Your task to perform on an android device: Go to notification settings Image 0: 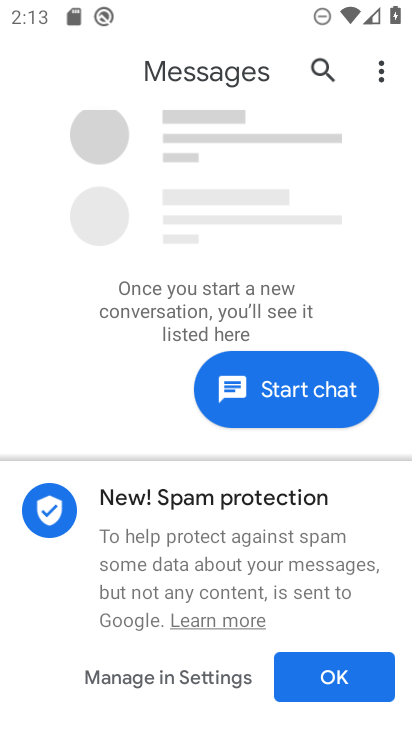
Step 0: press back button
Your task to perform on an android device: Go to notification settings Image 1: 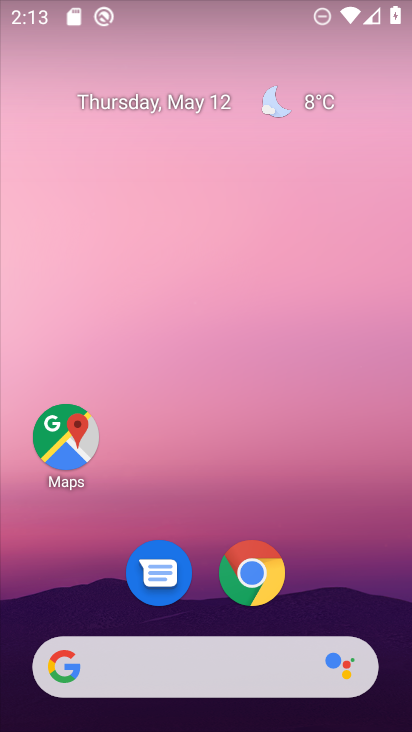
Step 1: drag from (320, 650) to (74, 0)
Your task to perform on an android device: Go to notification settings Image 2: 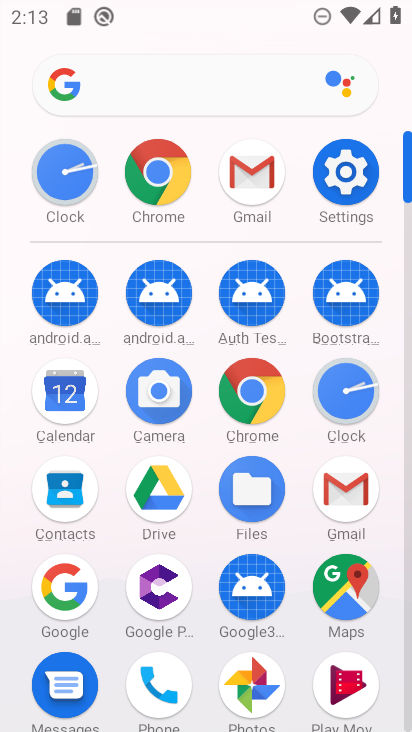
Step 2: click (333, 171)
Your task to perform on an android device: Go to notification settings Image 3: 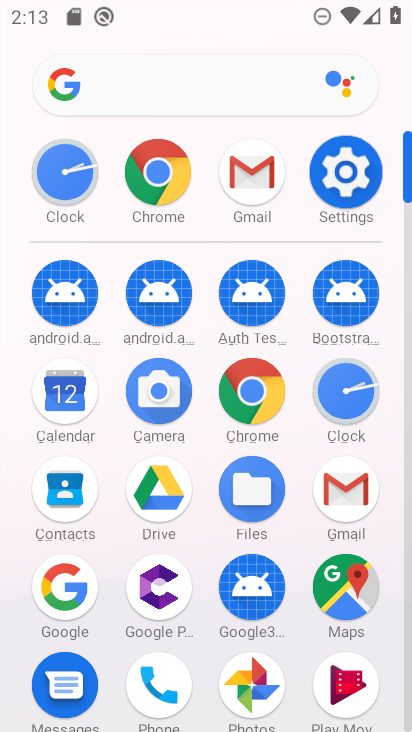
Step 3: click (339, 173)
Your task to perform on an android device: Go to notification settings Image 4: 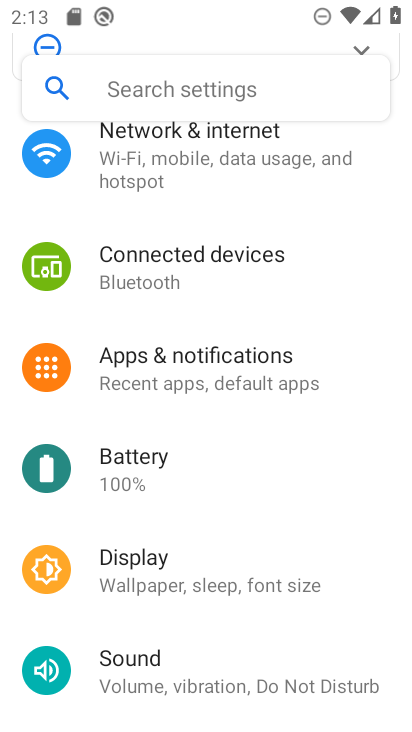
Step 4: click (164, 354)
Your task to perform on an android device: Go to notification settings Image 5: 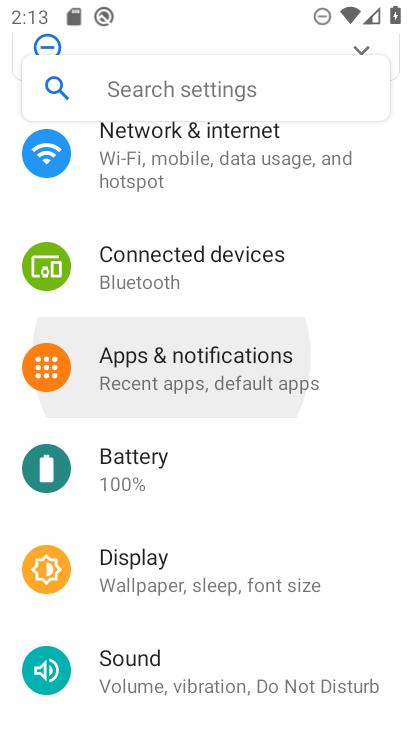
Step 5: click (165, 357)
Your task to perform on an android device: Go to notification settings Image 6: 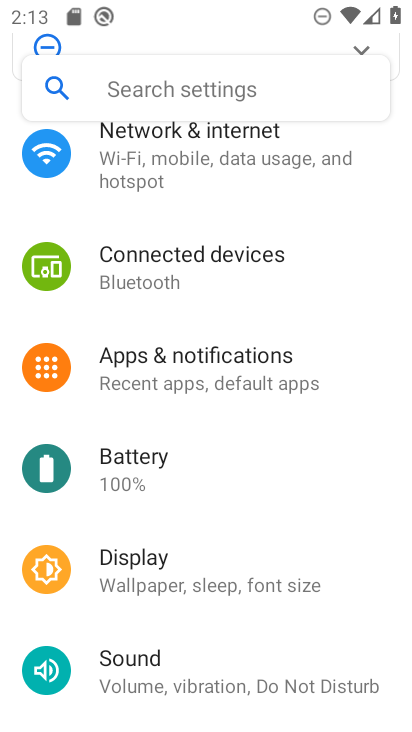
Step 6: click (174, 356)
Your task to perform on an android device: Go to notification settings Image 7: 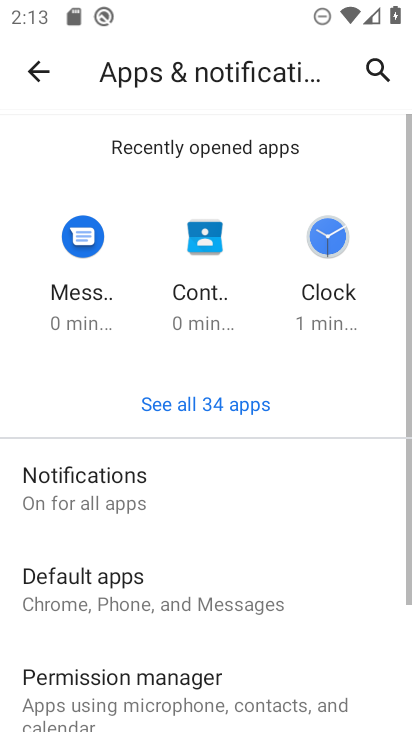
Step 7: drag from (228, 486) to (167, 85)
Your task to perform on an android device: Go to notification settings Image 8: 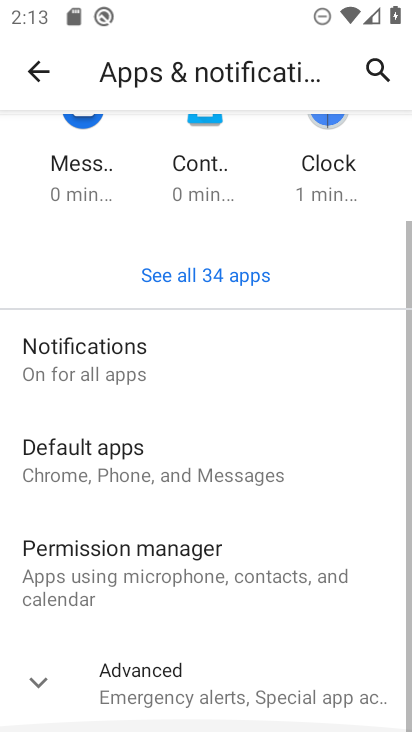
Step 8: drag from (174, 503) to (130, 184)
Your task to perform on an android device: Go to notification settings Image 9: 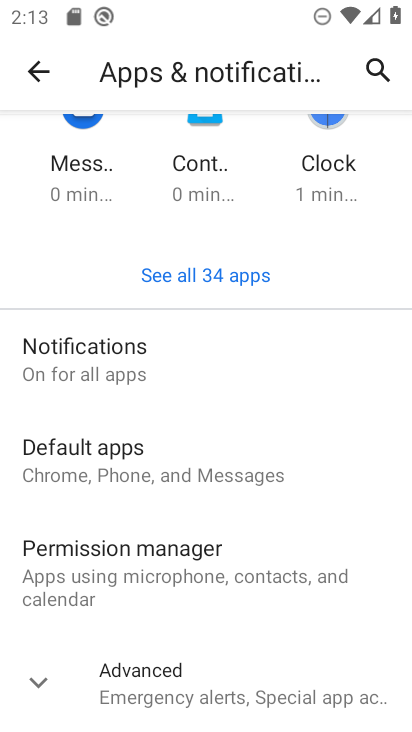
Step 9: drag from (103, 532) to (21, 313)
Your task to perform on an android device: Go to notification settings Image 10: 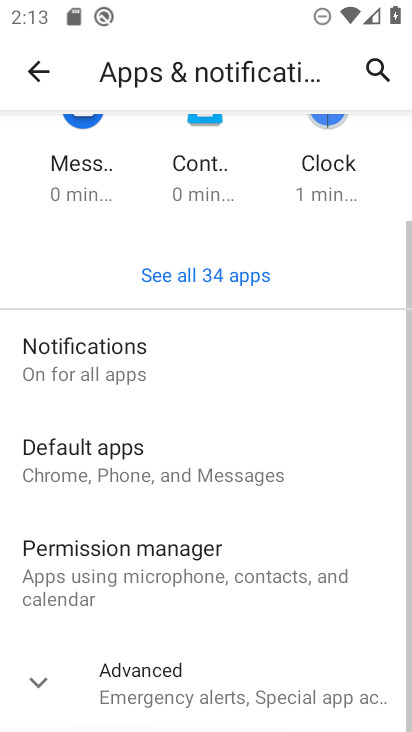
Step 10: drag from (110, 511) to (84, 73)
Your task to perform on an android device: Go to notification settings Image 11: 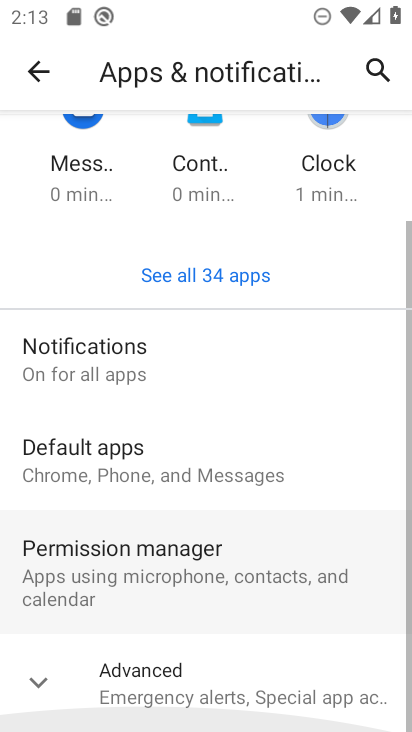
Step 11: drag from (162, 448) to (98, 41)
Your task to perform on an android device: Go to notification settings Image 12: 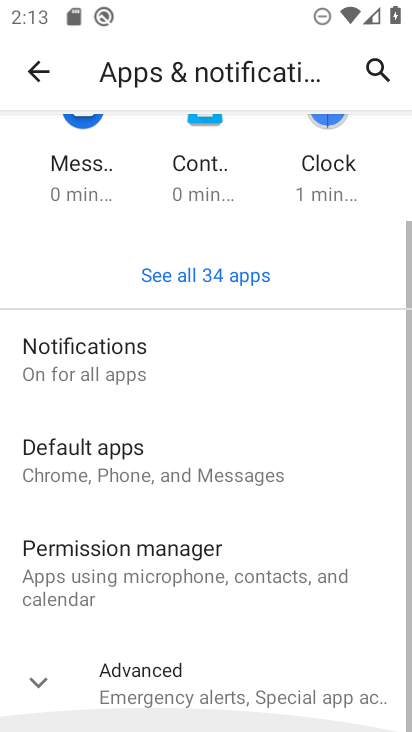
Step 12: drag from (123, 435) to (86, 82)
Your task to perform on an android device: Go to notification settings Image 13: 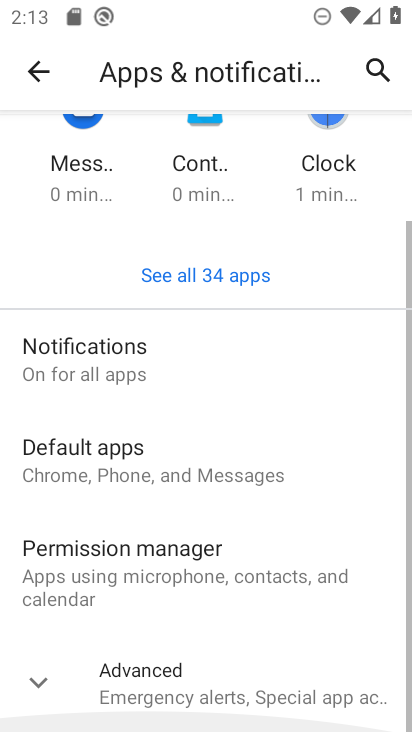
Step 13: click (141, 48)
Your task to perform on an android device: Go to notification settings Image 14: 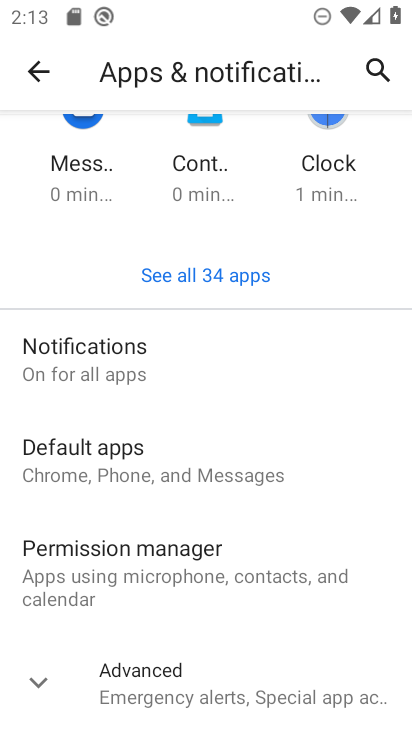
Step 14: drag from (133, 384) to (133, 17)
Your task to perform on an android device: Go to notification settings Image 15: 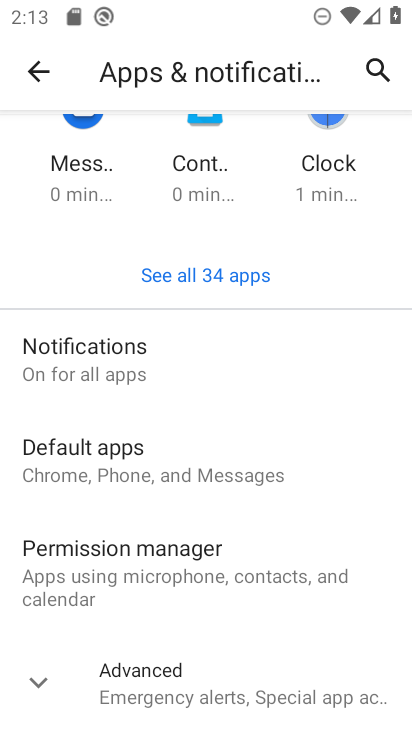
Step 15: click (37, 72)
Your task to perform on an android device: Go to notification settings Image 16: 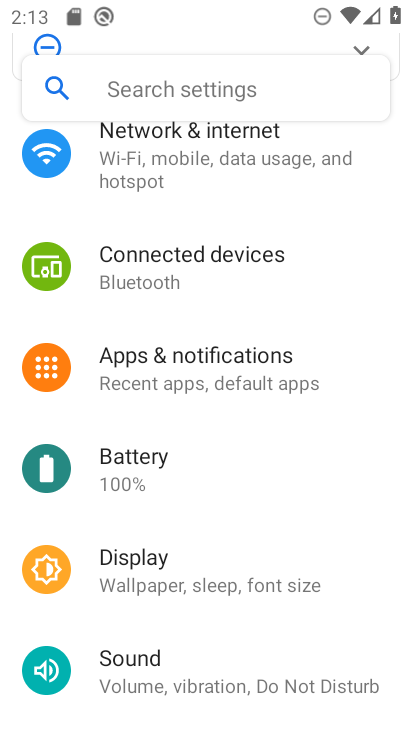
Step 16: drag from (174, 427) to (115, 99)
Your task to perform on an android device: Go to notification settings Image 17: 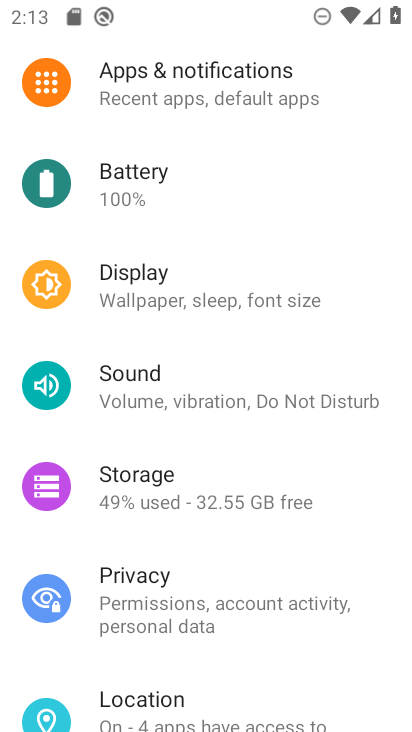
Step 17: drag from (144, 378) to (124, 246)
Your task to perform on an android device: Go to notification settings Image 18: 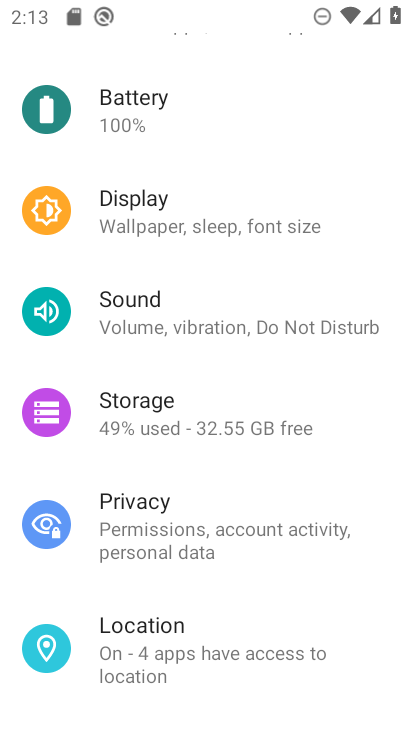
Step 18: drag from (227, 516) to (123, 213)
Your task to perform on an android device: Go to notification settings Image 19: 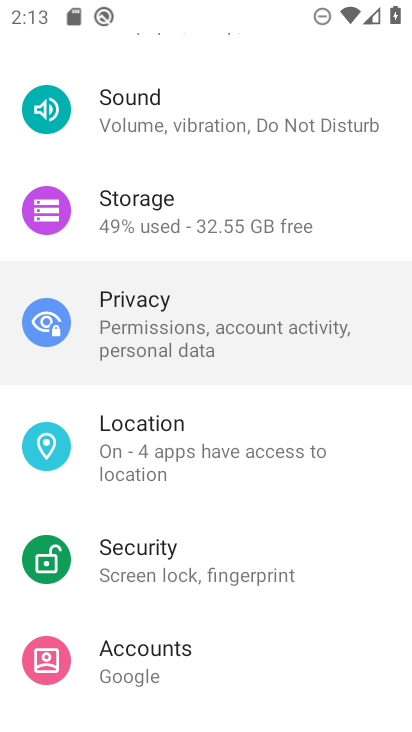
Step 19: drag from (129, 179) to (156, 443)
Your task to perform on an android device: Go to notification settings Image 20: 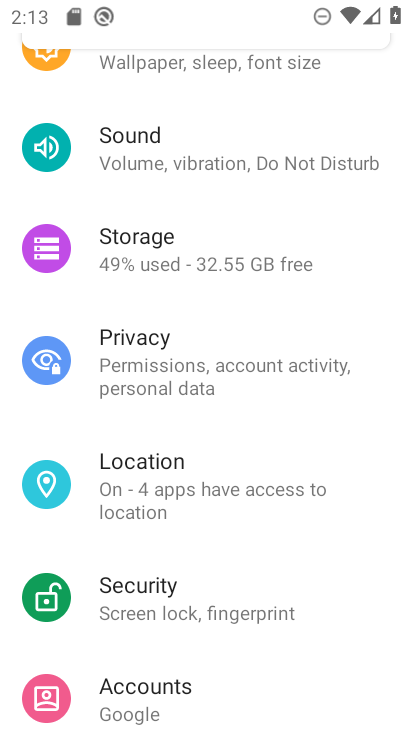
Step 20: drag from (173, 393) to (197, 417)
Your task to perform on an android device: Go to notification settings Image 21: 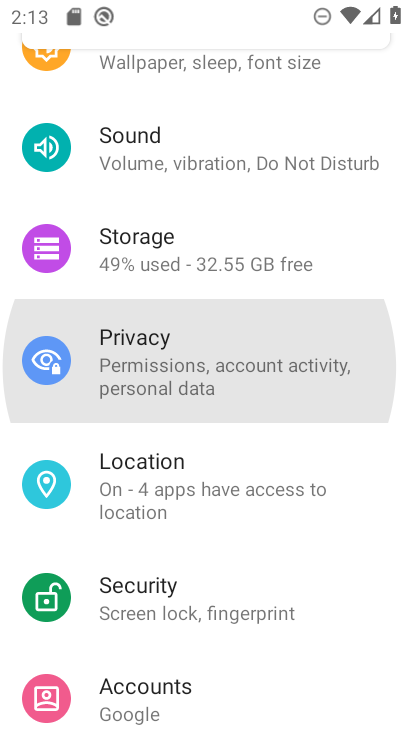
Step 21: drag from (167, 309) to (211, 371)
Your task to perform on an android device: Go to notification settings Image 22: 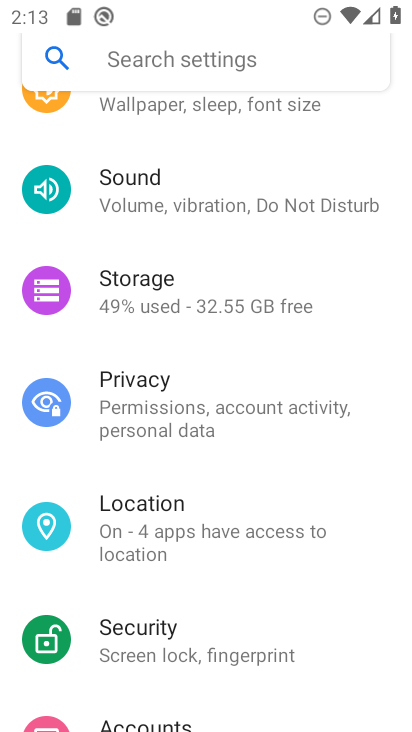
Step 22: drag from (176, 232) to (212, 446)
Your task to perform on an android device: Go to notification settings Image 23: 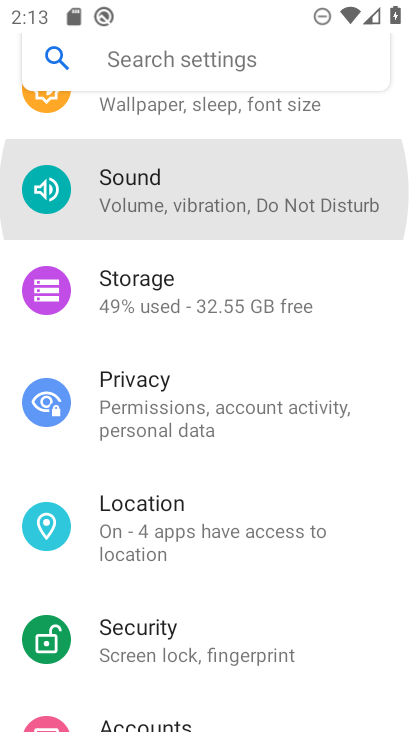
Step 23: drag from (180, 204) to (199, 440)
Your task to perform on an android device: Go to notification settings Image 24: 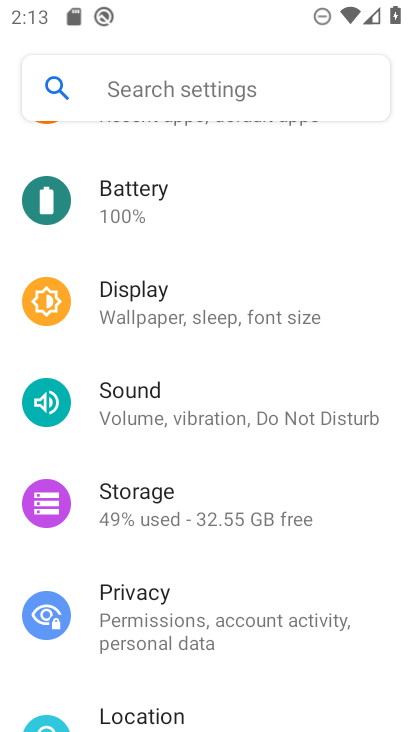
Step 24: drag from (177, 236) to (227, 536)
Your task to perform on an android device: Go to notification settings Image 25: 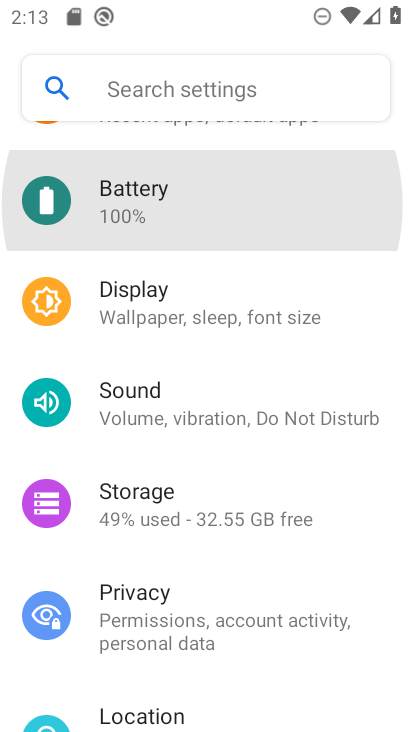
Step 25: drag from (35, 250) to (177, 464)
Your task to perform on an android device: Go to notification settings Image 26: 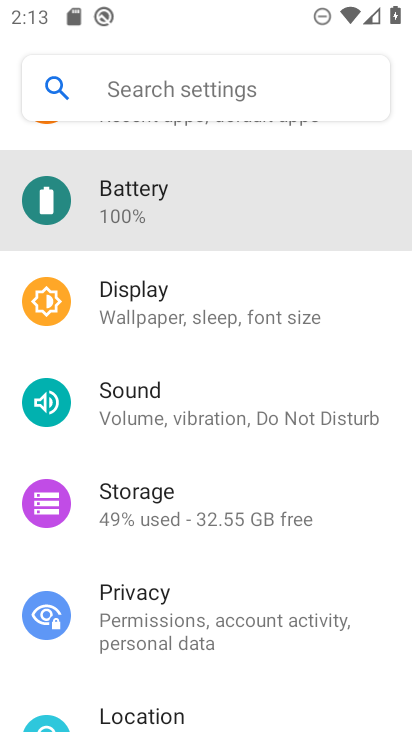
Step 26: drag from (204, 205) to (243, 526)
Your task to perform on an android device: Go to notification settings Image 27: 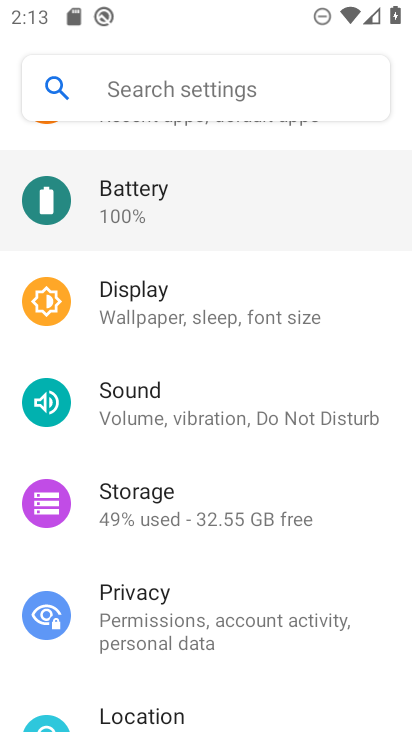
Step 27: drag from (169, 223) to (207, 402)
Your task to perform on an android device: Go to notification settings Image 28: 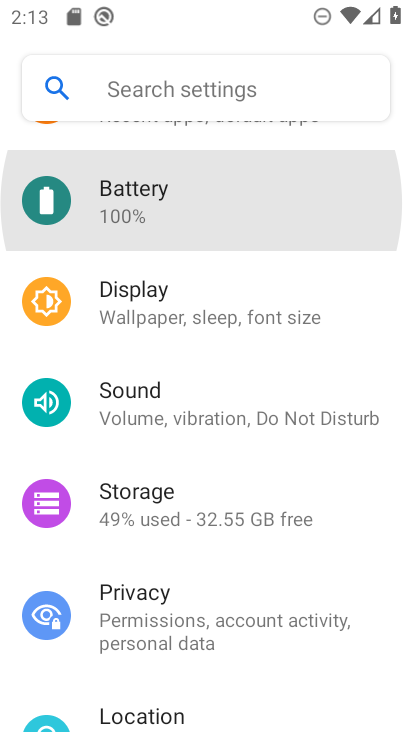
Step 28: drag from (128, 208) to (182, 369)
Your task to perform on an android device: Go to notification settings Image 29: 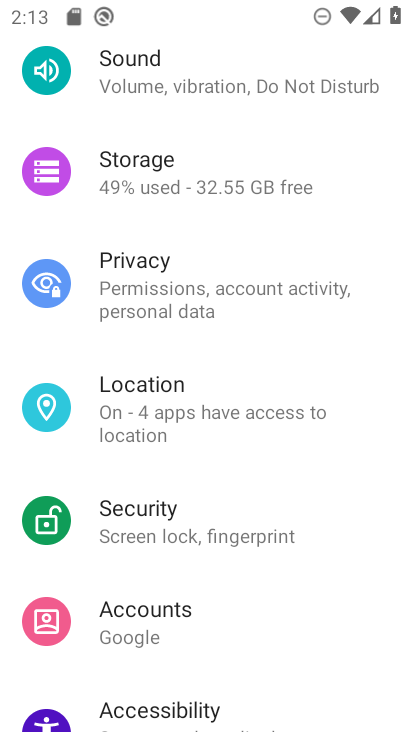
Step 29: drag from (192, 257) to (280, 522)
Your task to perform on an android device: Go to notification settings Image 30: 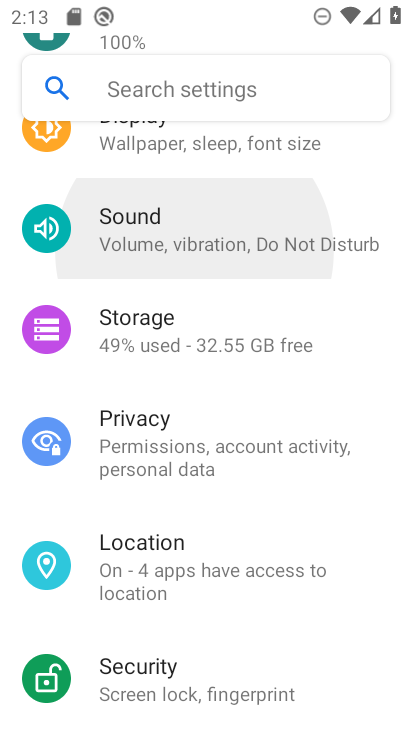
Step 30: drag from (244, 278) to (290, 522)
Your task to perform on an android device: Go to notification settings Image 31: 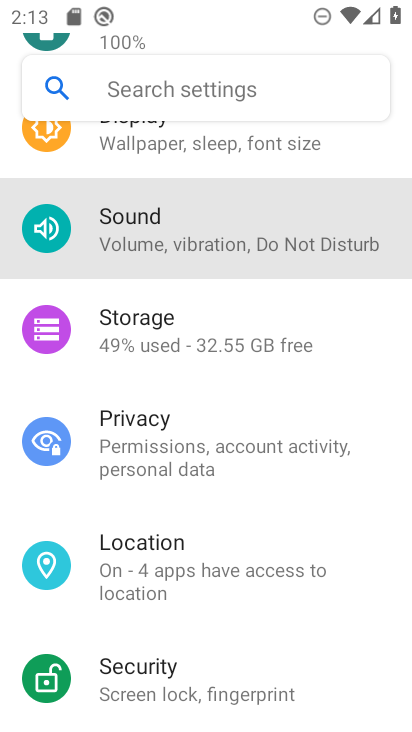
Step 31: drag from (202, 226) to (255, 452)
Your task to perform on an android device: Go to notification settings Image 32: 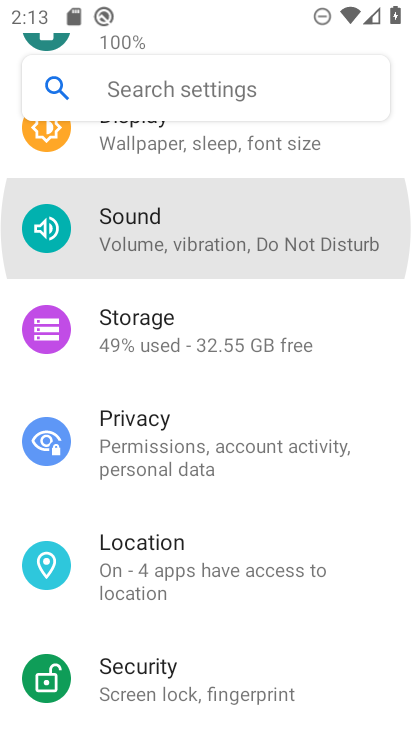
Step 32: drag from (229, 249) to (231, 485)
Your task to perform on an android device: Go to notification settings Image 33: 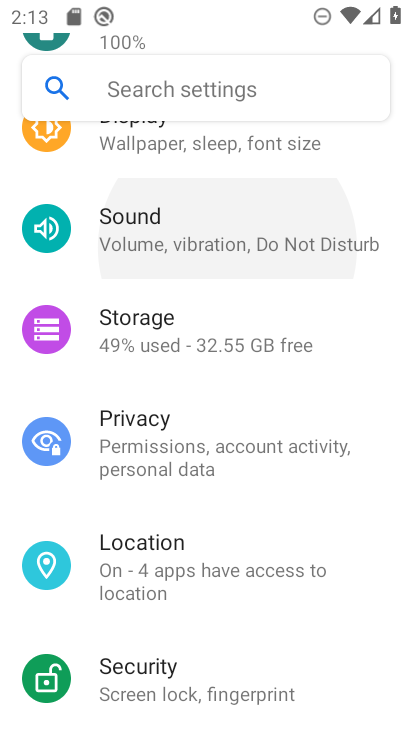
Step 33: drag from (103, 233) to (141, 464)
Your task to perform on an android device: Go to notification settings Image 34: 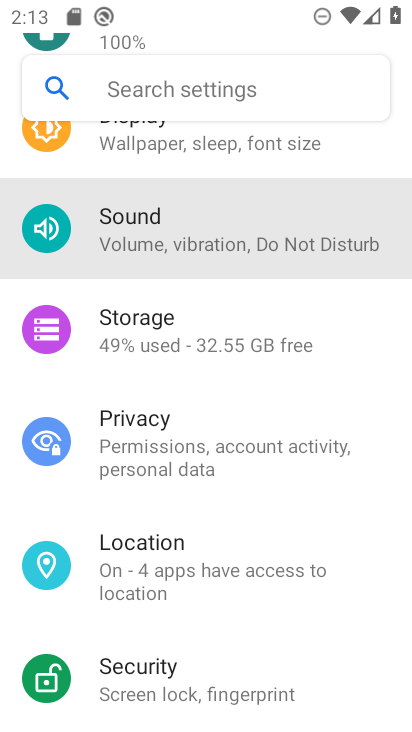
Step 34: drag from (104, 267) to (231, 646)
Your task to perform on an android device: Go to notification settings Image 35: 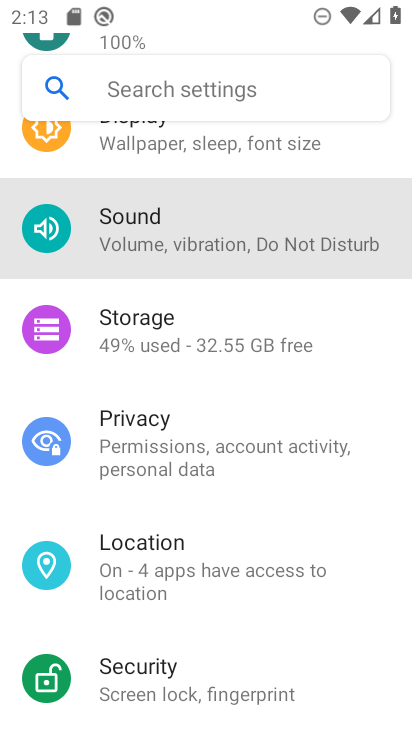
Step 35: drag from (150, 309) to (190, 587)
Your task to perform on an android device: Go to notification settings Image 36: 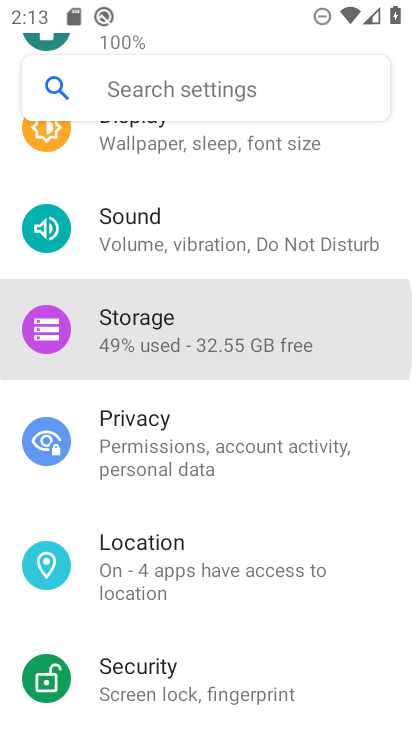
Step 36: drag from (94, 269) to (200, 508)
Your task to perform on an android device: Go to notification settings Image 37: 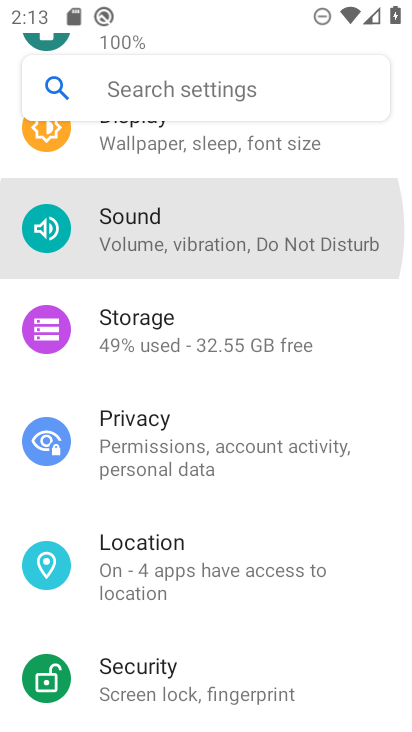
Step 37: drag from (158, 191) to (207, 568)
Your task to perform on an android device: Go to notification settings Image 38: 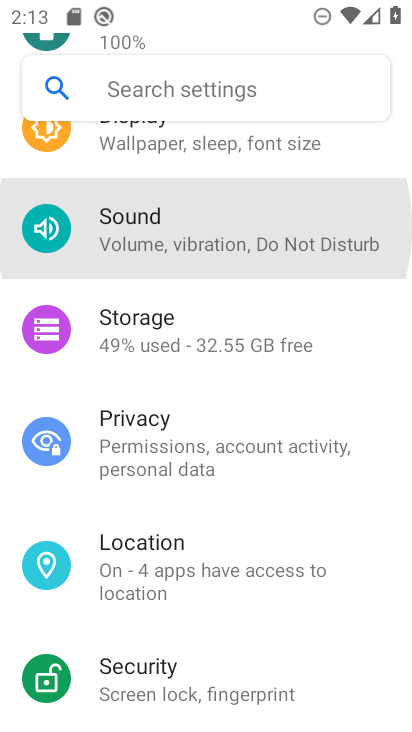
Step 38: drag from (177, 259) to (242, 440)
Your task to perform on an android device: Go to notification settings Image 39: 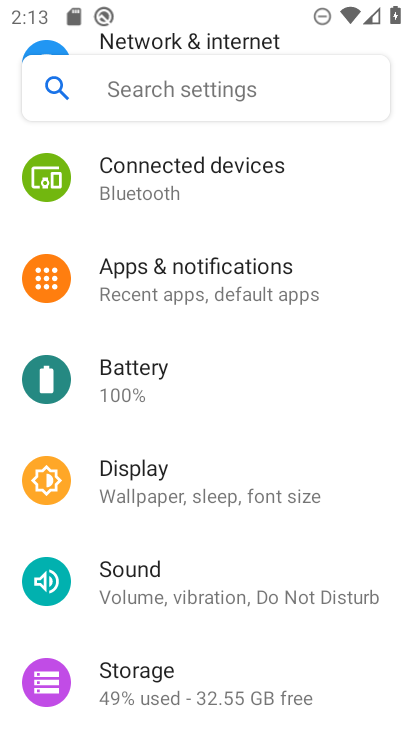
Step 39: drag from (210, 374) to (218, 636)
Your task to perform on an android device: Go to notification settings Image 40: 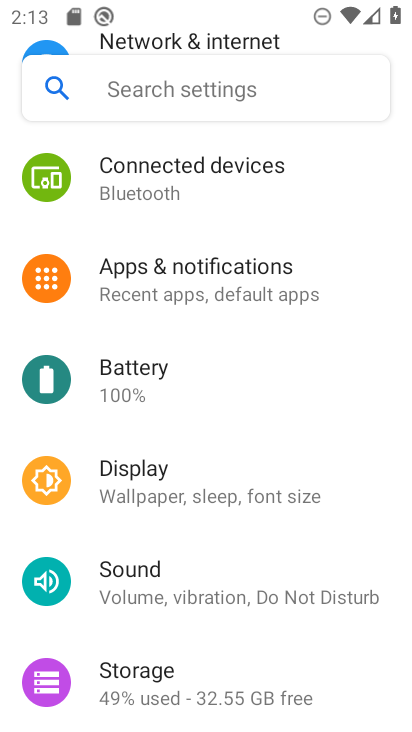
Step 40: drag from (146, 223) to (193, 477)
Your task to perform on an android device: Go to notification settings Image 41: 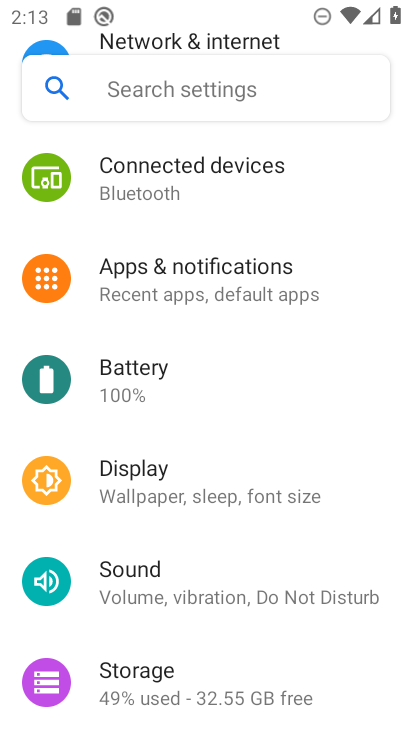
Step 41: drag from (197, 205) to (307, 532)
Your task to perform on an android device: Go to notification settings Image 42: 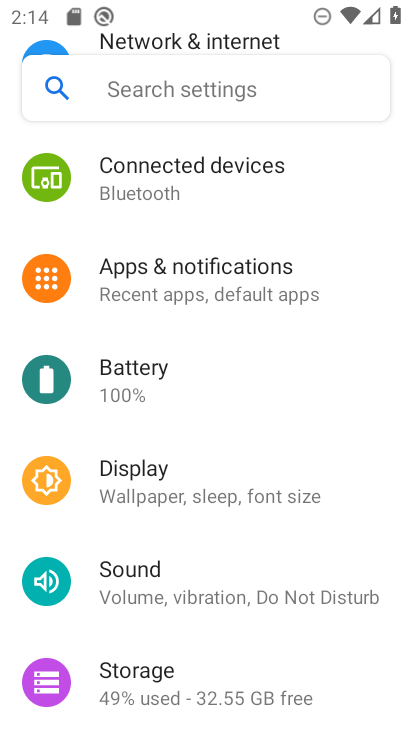
Step 42: drag from (186, 278) to (219, 305)
Your task to perform on an android device: Go to notification settings Image 43: 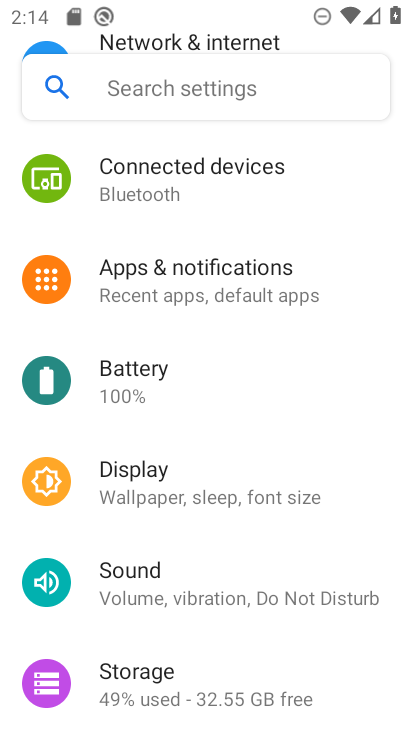
Step 43: click (217, 299)
Your task to perform on an android device: Go to notification settings Image 44: 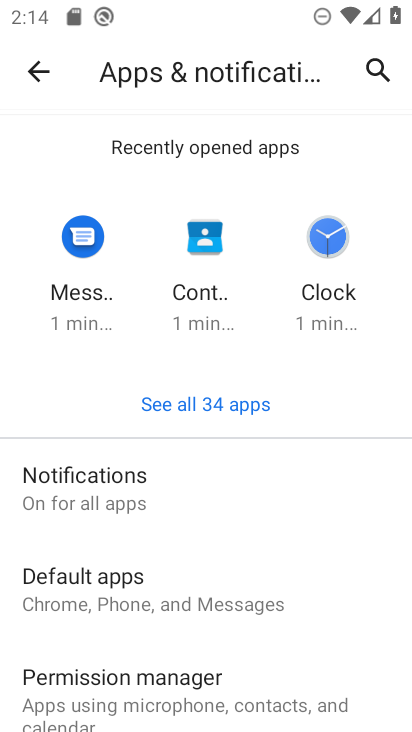
Step 44: drag from (102, 558) to (83, 246)
Your task to perform on an android device: Go to notification settings Image 45: 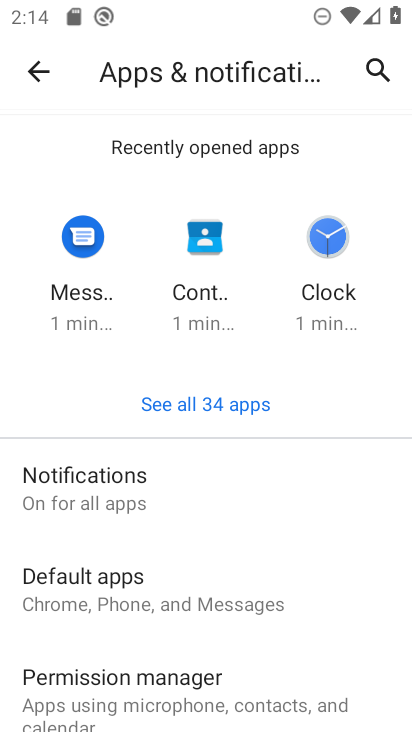
Step 45: click (112, 483)
Your task to perform on an android device: Go to notification settings Image 46: 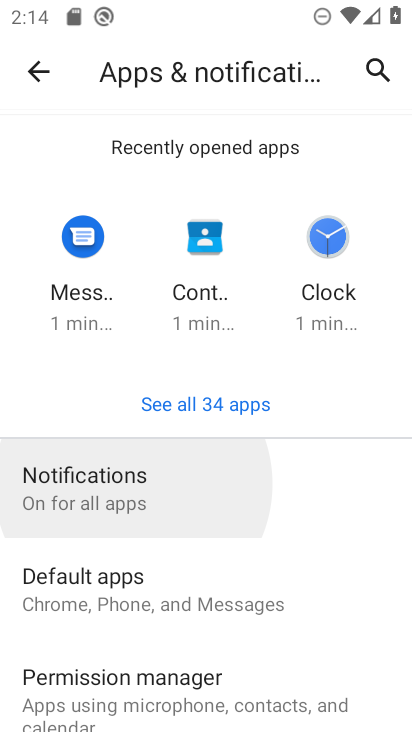
Step 46: click (115, 481)
Your task to perform on an android device: Go to notification settings Image 47: 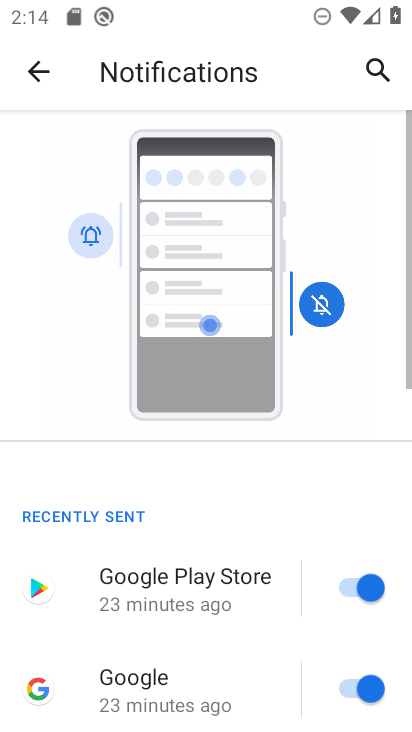
Step 47: drag from (203, 521) to (210, 133)
Your task to perform on an android device: Go to notification settings Image 48: 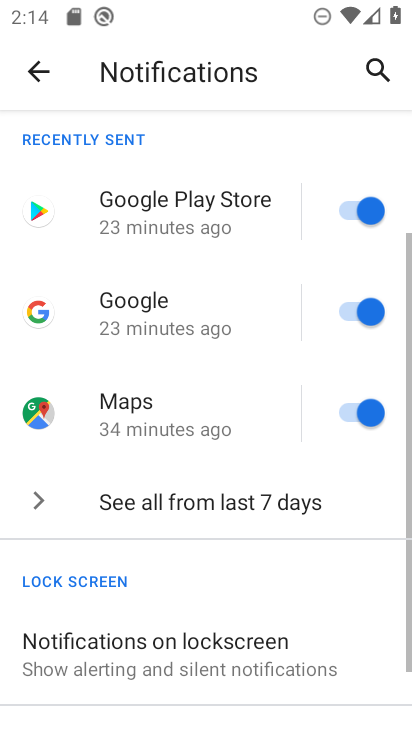
Step 48: drag from (222, 429) to (170, 81)
Your task to perform on an android device: Go to notification settings Image 49: 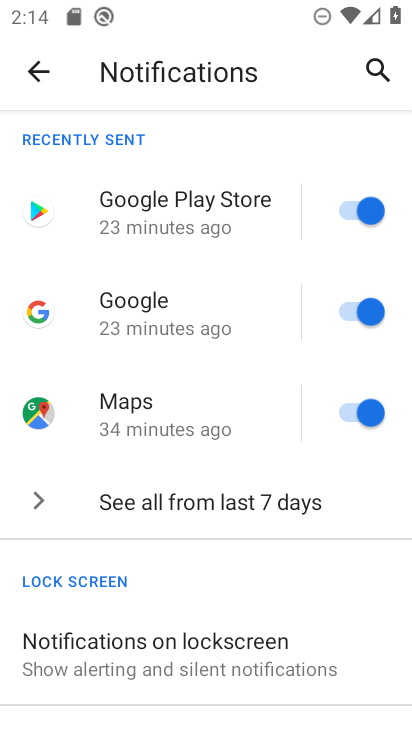
Step 49: drag from (232, 490) to (183, 79)
Your task to perform on an android device: Go to notification settings Image 50: 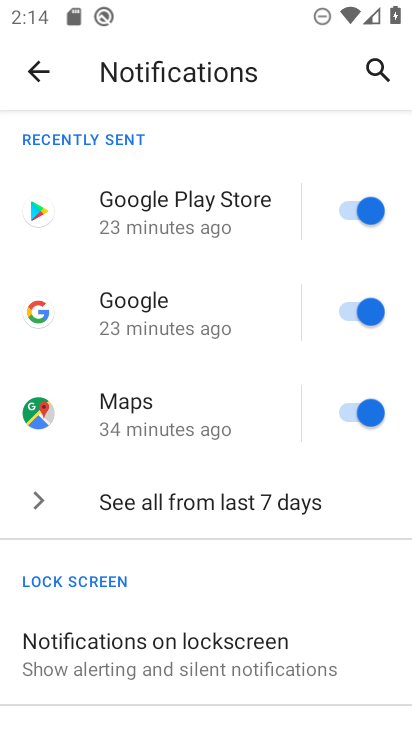
Step 50: drag from (221, 517) to (179, 155)
Your task to perform on an android device: Go to notification settings Image 51: 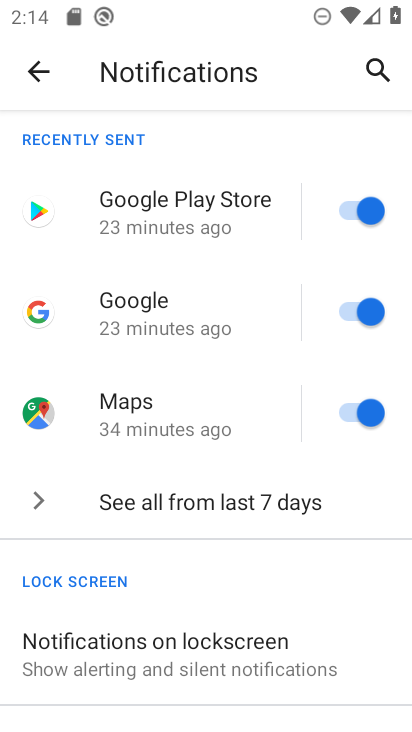
Step 51: drag from (285, 467) to (236, 101)
Your task to perform on an android device: Go to notification settings Image 52: 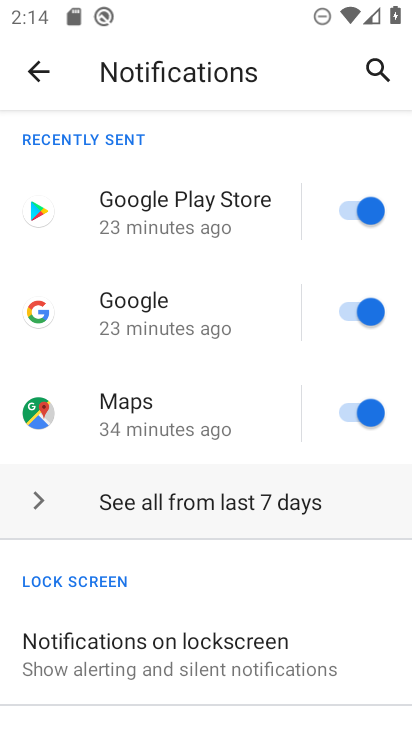
Step 52: drag from (152, 524) to (114, 120)
Your task to perform on an android device: Go to notification settings Image 53: 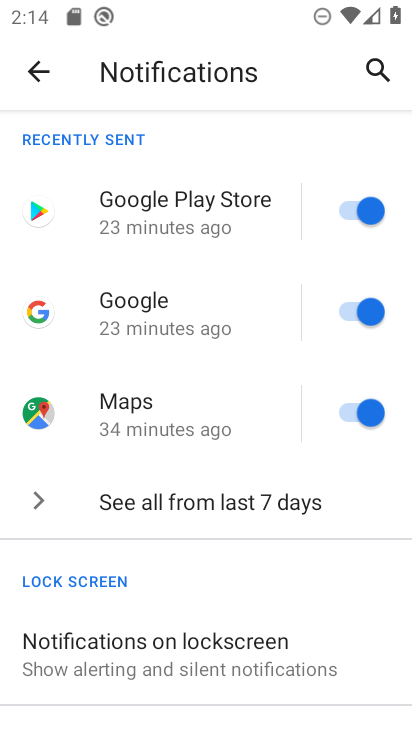
Step 53: click (206, 639)
Your task to perform on an android device: Go to notification settings Image 54: 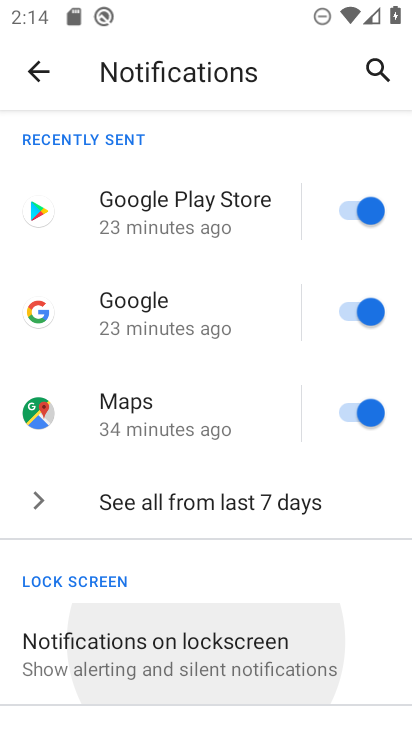
Step 54: click (207, 640)
Your task to perform on an android device: Go to notification settings Image 55: 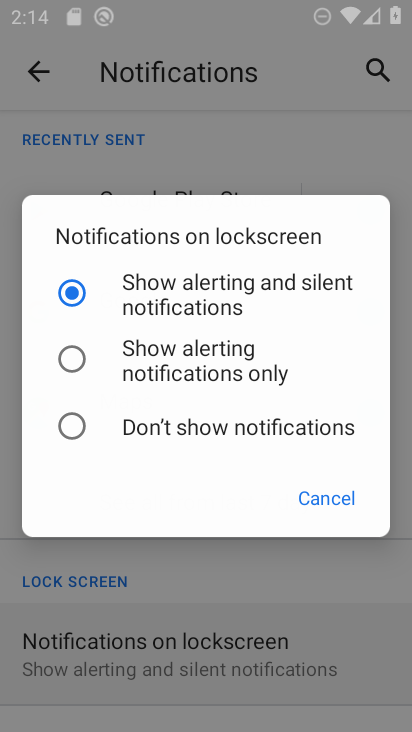
Step 55: click (213, 657)
Your task to perform on an android device: Go to notification settings Image 56: 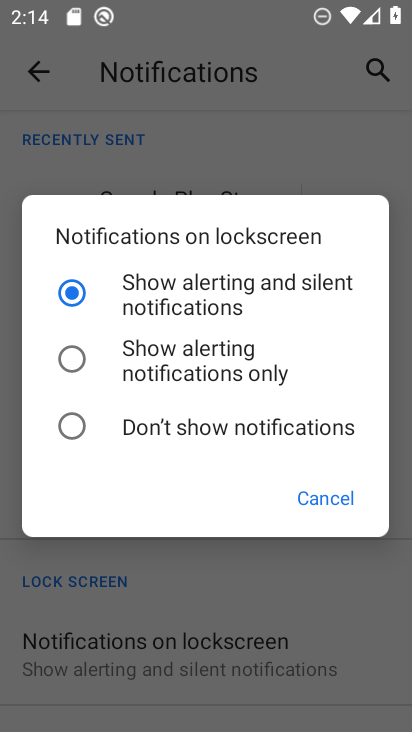
Step 56: click (205, 680)
Your task to perform on an android device: Go to notification settings Image 57: 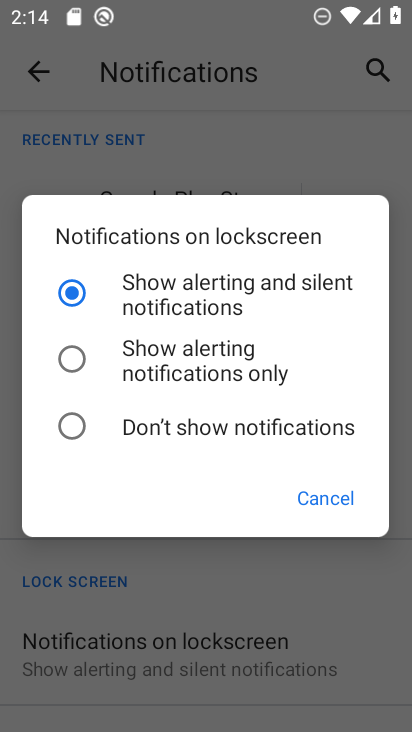
Step 57: click (319, 484)
Your task to perform on an android device: Go to notification settings Image 58: 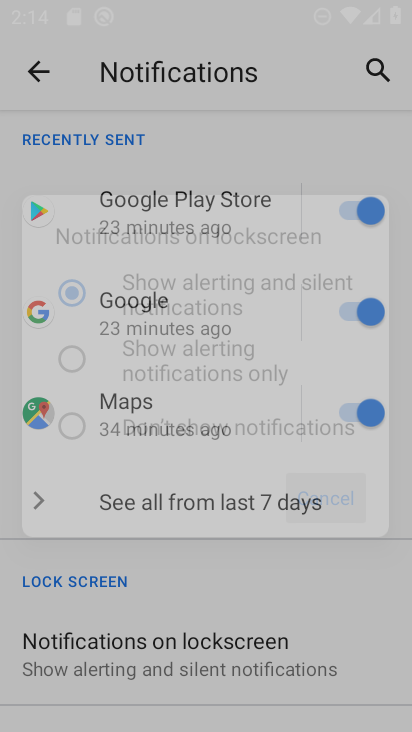
Step 58: click (328, 505)
Your task to perform on an android device: Go to notification settings Image 59: 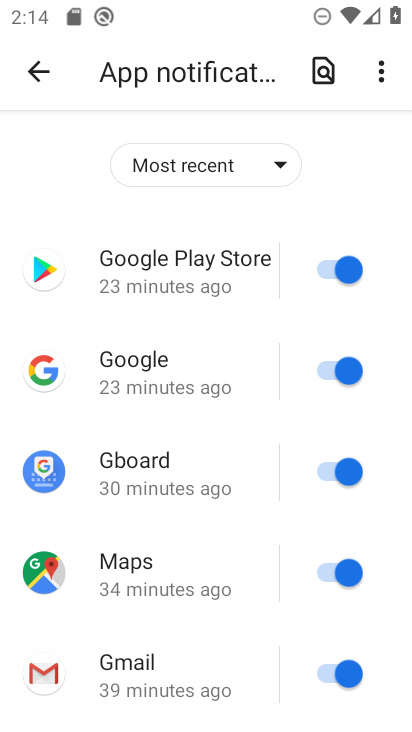
Step 59: click (34, 80)
Your task to perform on an android device: Go to notification settings Image 60: 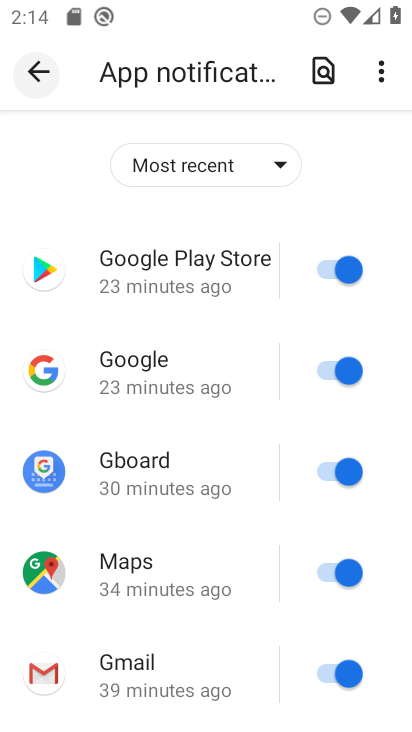
Step 60: click (33, 63)
Your task to perform on an android device: Go to notification settings Image 61: 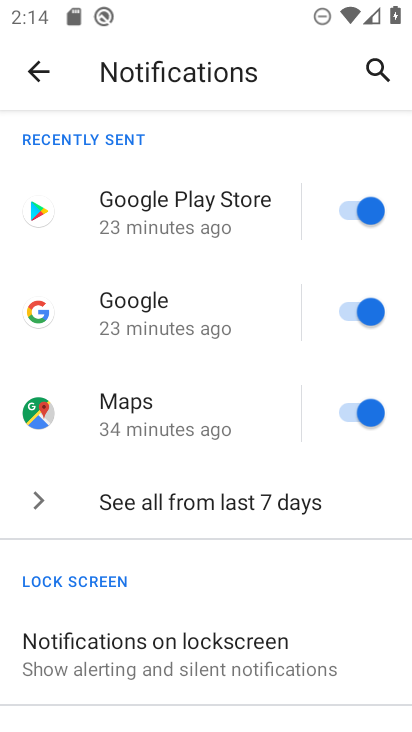
Step 61: click (165, 651)
Your task to perform on an android device: Go to notification settings Image 62: 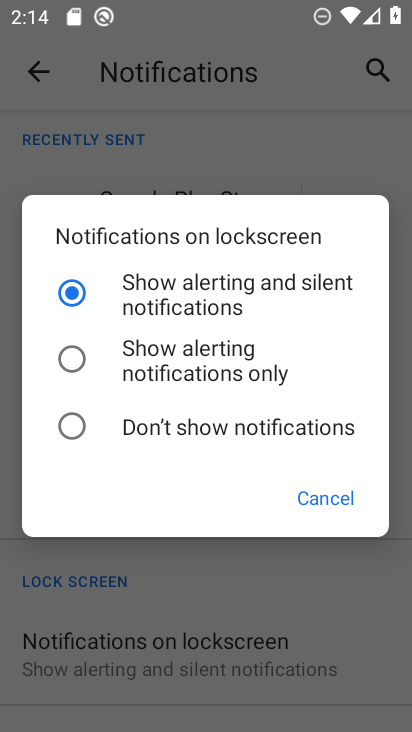
Step 62: click (330, 496)
Your task to perform on an android device: Go to notification settings Image 63: 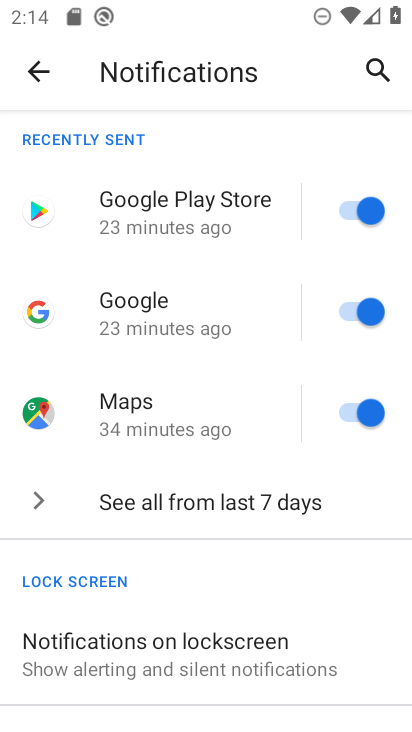
Step 63: click (43, 72)
Your task to perform on an android device: Go to notification settings Image 64: 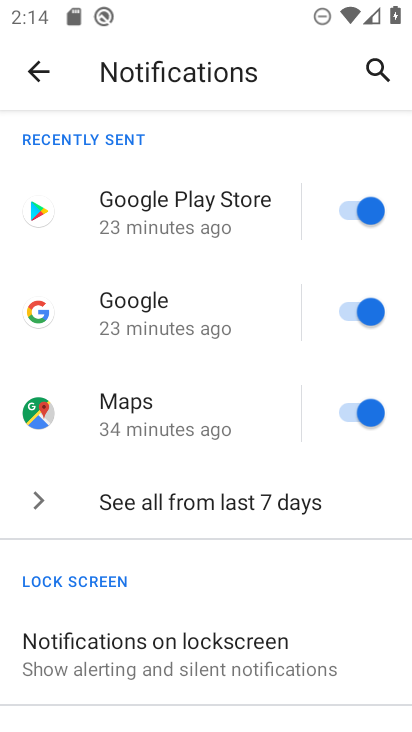
Step 64: drag from (141, 595) to (182, 367)
Your task to perform on an android device: Go to notification settings Image 65: 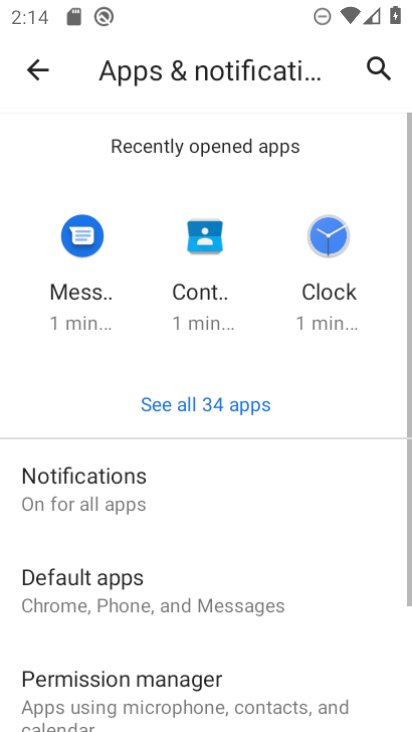
Step 65: drag from (181, 578) to (209, 280)
Your task to perform on an android device: Go to notification settings Image 66: 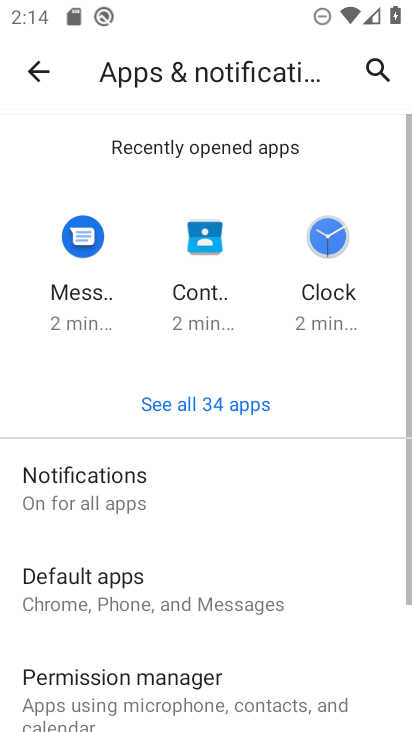
Step 66: drag from (206, 508) to (200, 190)
Your task to perform on an android device: Go to notification settings Image 67: 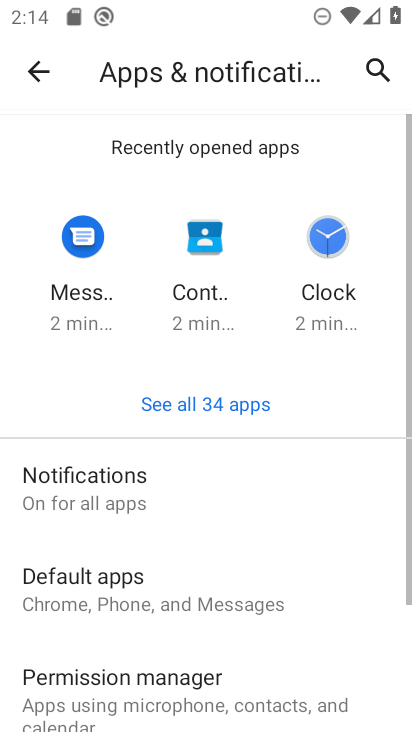
Step 67: drag from (113, 580) to (90, 257)
Your task to perform on an android device: Go to notification settings Image 68: 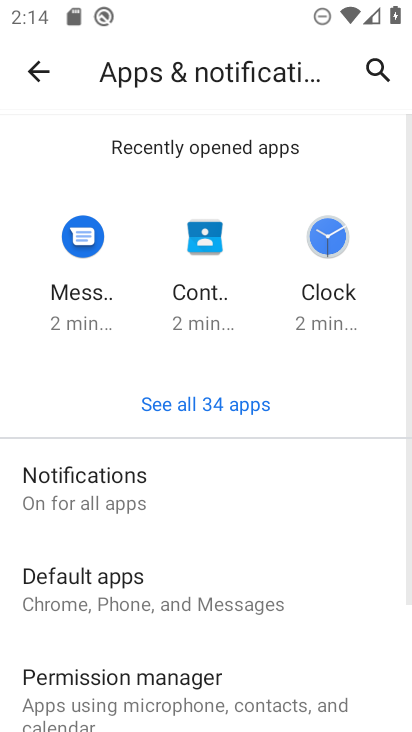
Step 68: drag from (113, 431) to (111, 117)
Your task to perform on an android device: Go to notification settings Image 69: 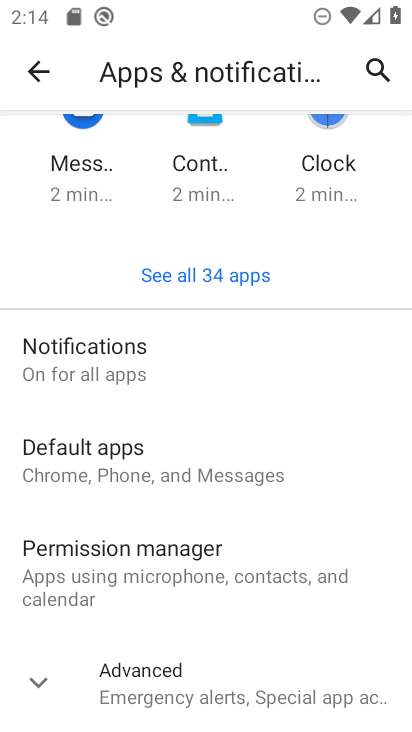
Step 69: click (30, 70)
Your task to perform on an android device: Go to notification settings Image 70: 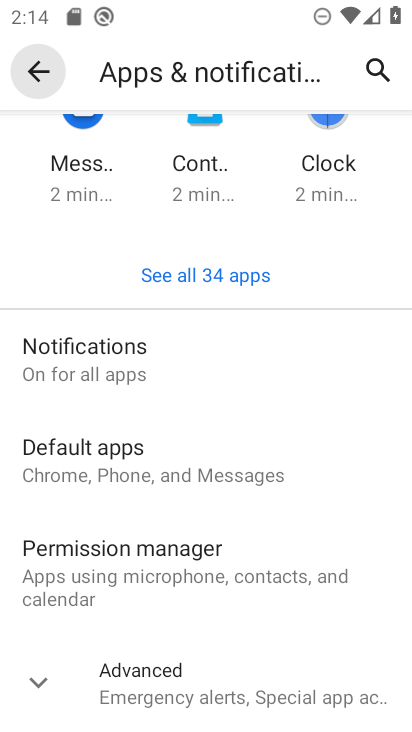
Step 70: click (38, 68)
Your task to perform on an android device: Go to notification settings Image 71: 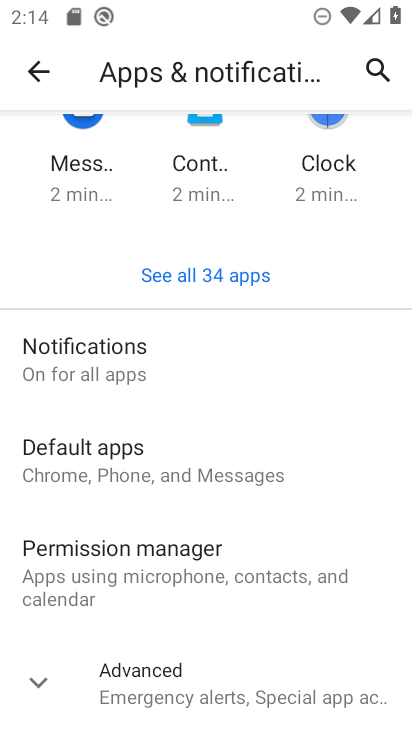
Step 71: click (38, 68)
Your task to perform on an android device: Go to notification settings Image 72: 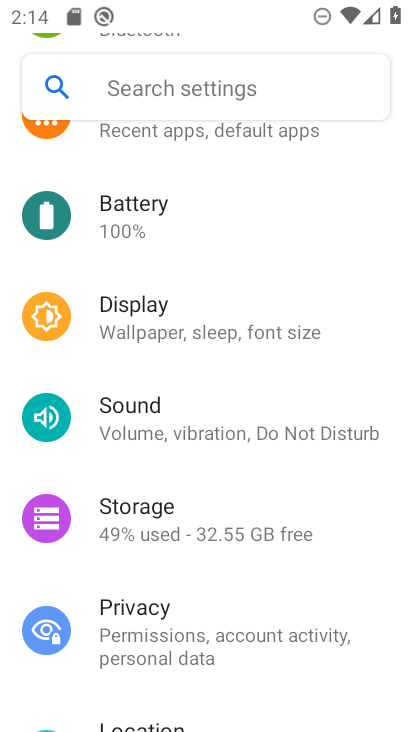
Step 72: drag from (77, 408) to (2, 83)
Your task to perform on an android device: Go to notification settings Image 73: 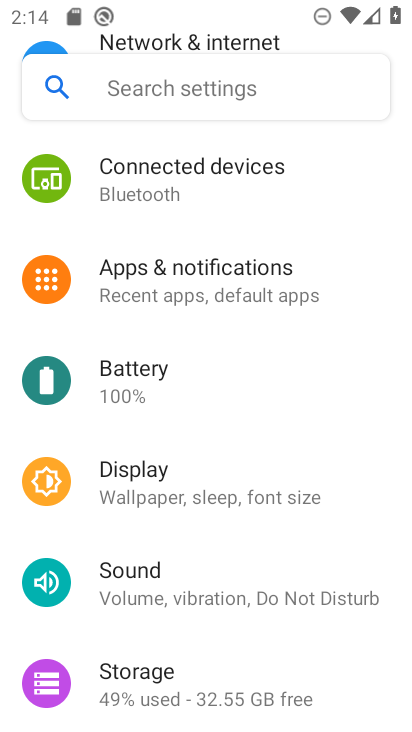
Step 73: drag from (142, 467) to (99, 192)
Your task to perform on an android device: Go to notification settings Image 74: 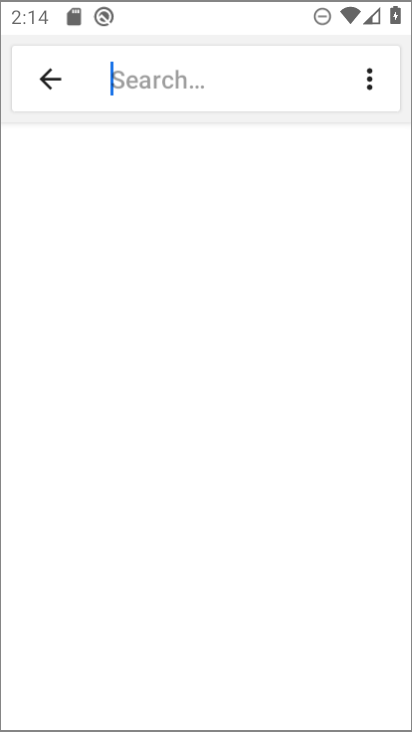
Step 74: drag from (112, 505) to (106, 121)
Your task to perform on an android device: Go to notification settings Image 75: 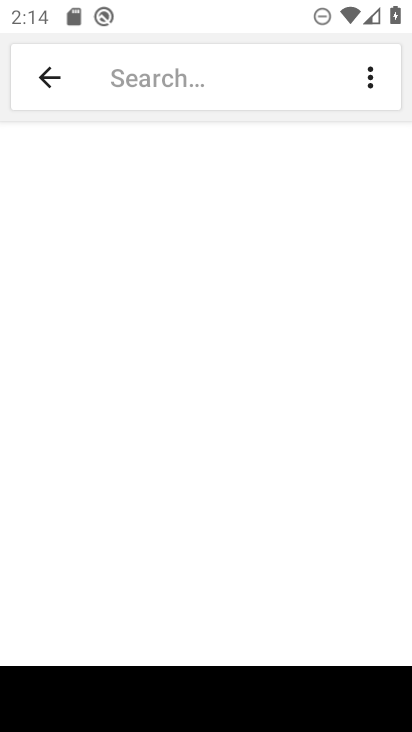
Step 75: drag from (188, 412) to (176, 194)
Your task to perform on an android device: Go to notification settings Image 76: 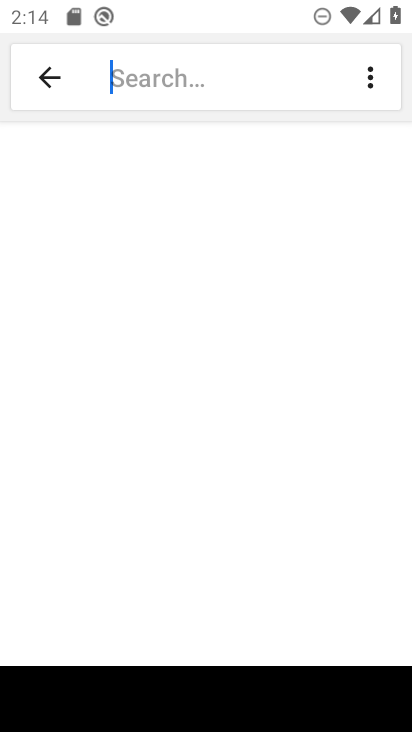
Step 76: click (45, 84)
Your task to perform on an android device: Go to notification settings Image 77: 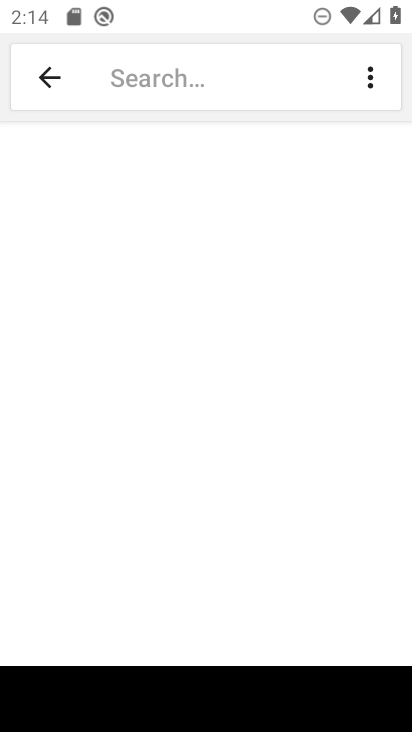
Step 77: click (45, 84)
Your task to perform on an android device: Go to notification settings Image 78: 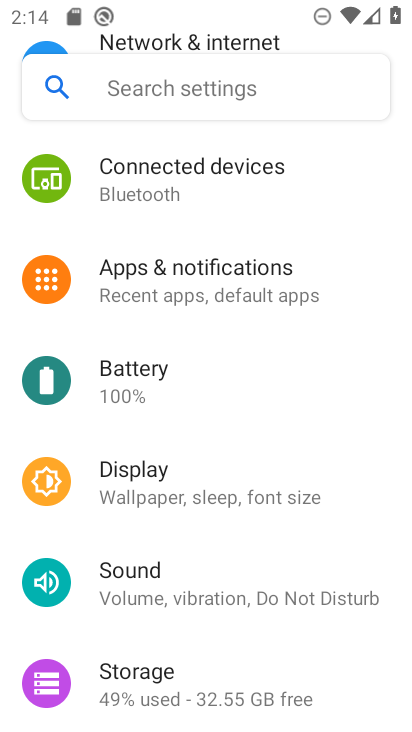
Step 78: drag from (178, 420) to (129, 116)
Your task to perform on an android device: Go to notification settings Image 79: 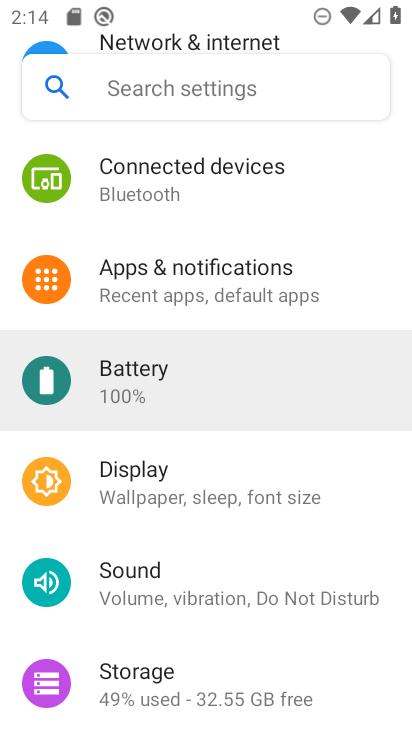
Step 79: drag from (154, 353) to (168, 113)
Your task to perform on an android device: Go to notification settings Image 80: 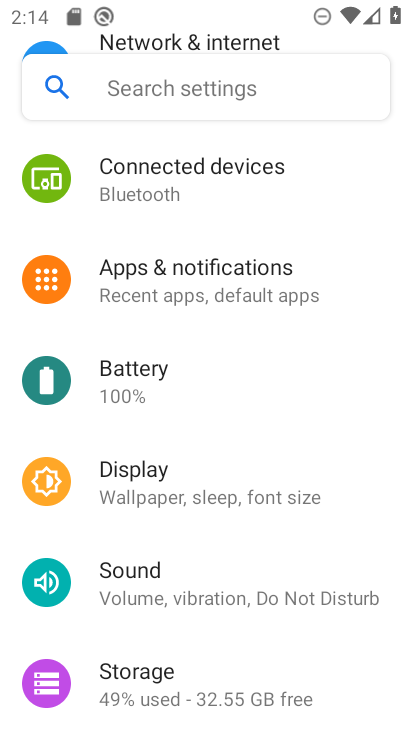
Step 80: click (195, 284)
Your task to perform on an android device: Go to notification settings Image 81: 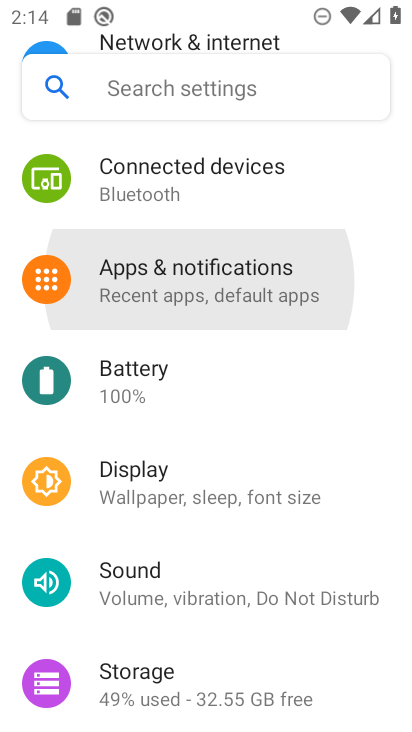
Step 81: click (195, 280)
Your task to perform on an android device: Go to notification settings Image 82: 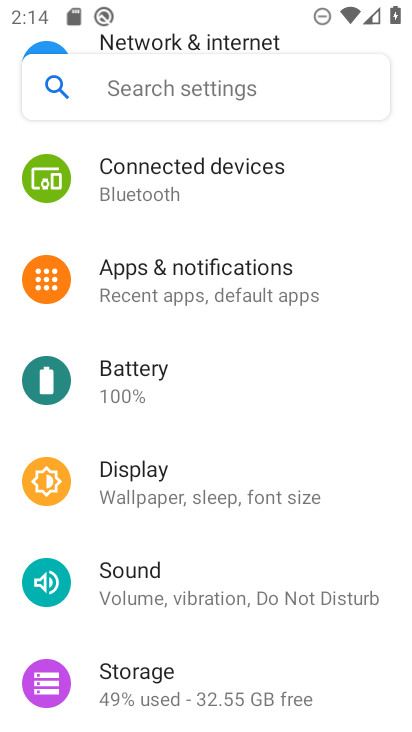
Step 82: drag from (197, 293) to (174, 211)
Your task to perform on an android device: Go to notification settings Image 83: 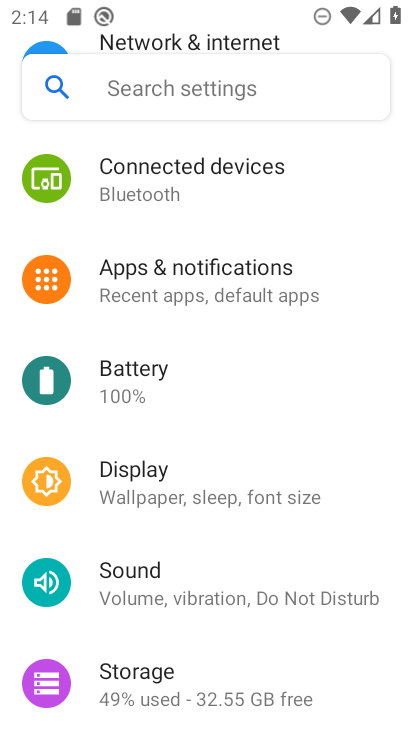
Step 83: drag from (209, 509) to (194, 243)
Your task to perform on an android device: Go to notification settings Image 84: 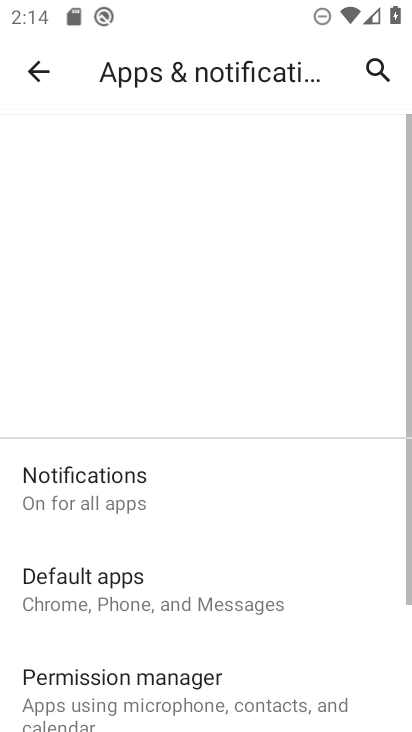
Step 84: click (195, 278)
Your task to perform on an android device: Go to notification settings Image 85: 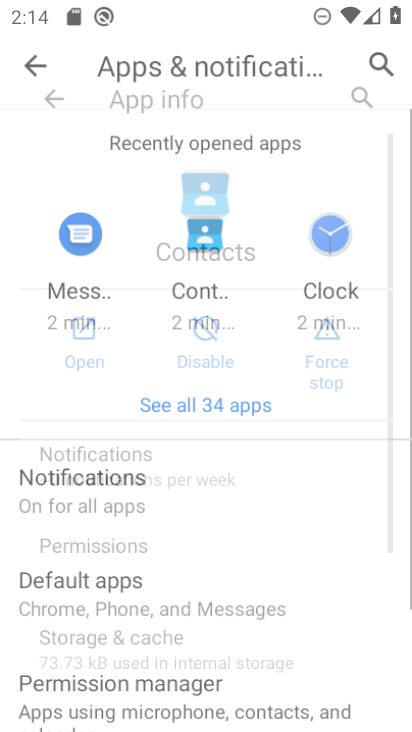
Step 85: click (99, 496)
Your task to perform on an android device: Go to notification settings Image 86: 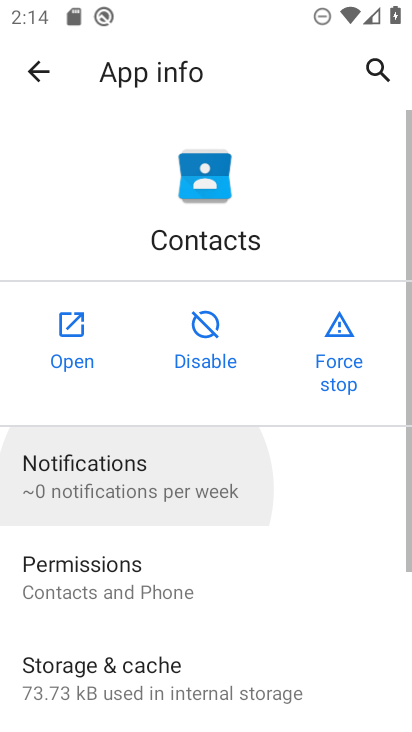
Step 86: click (99, 494)
Your task to perform on an android device: Go to notification settings Image 87: 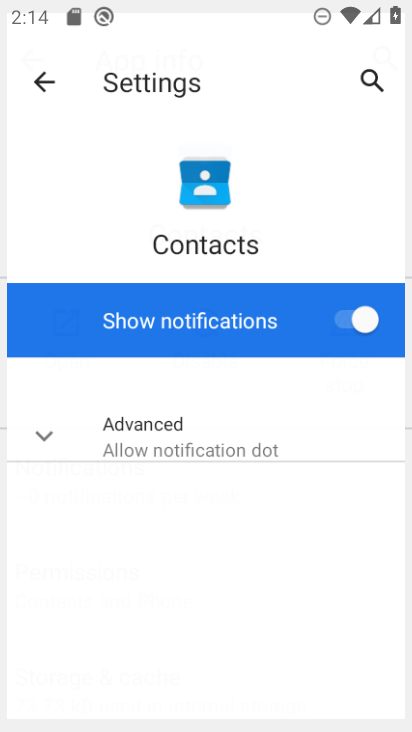
Step 87: click (102, 491)
Your task to perform on an android device: Go to notification settings Image 88: 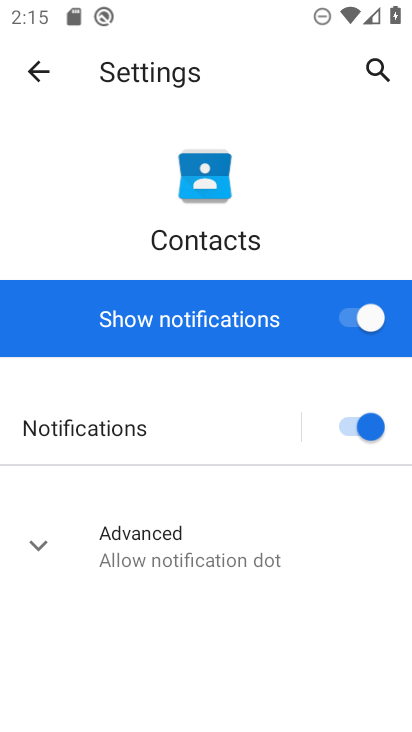
Step 88: task complete